Your task to perform on an android device: check battery use Image 0: 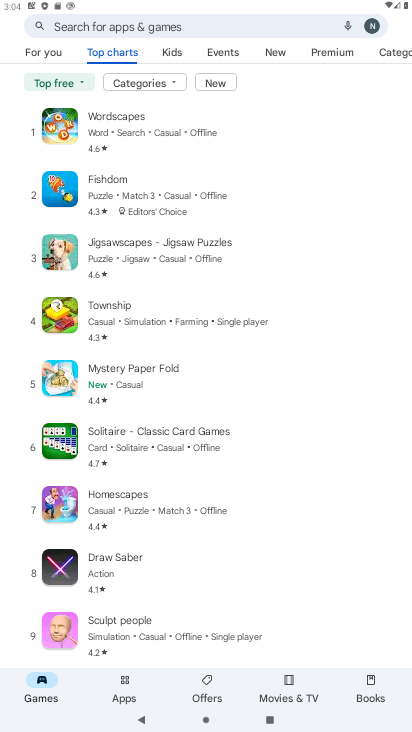
Step 0: press home button
Your task to perform on an android device: check battery use Image 1: 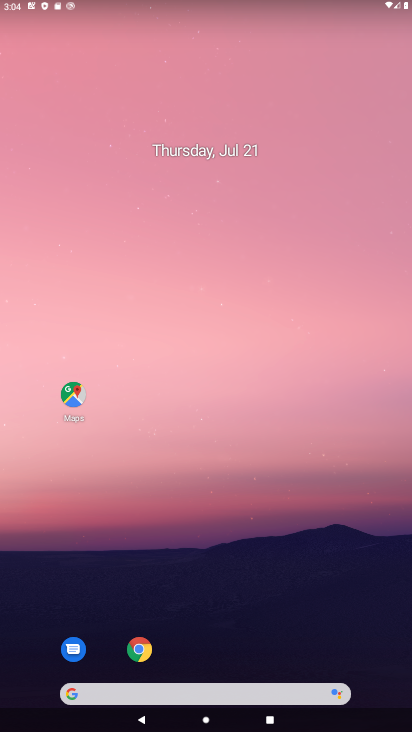
Step 1: drag from (240, 664) to (224, 153)
Your task to perform on an android device: check battery use Image 2: 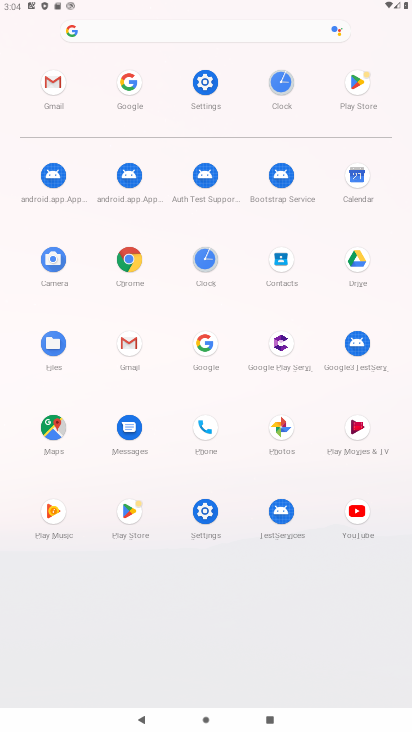
Step 2: click (216, 82)
Your task to perform on an android device: check battery use Image 3: 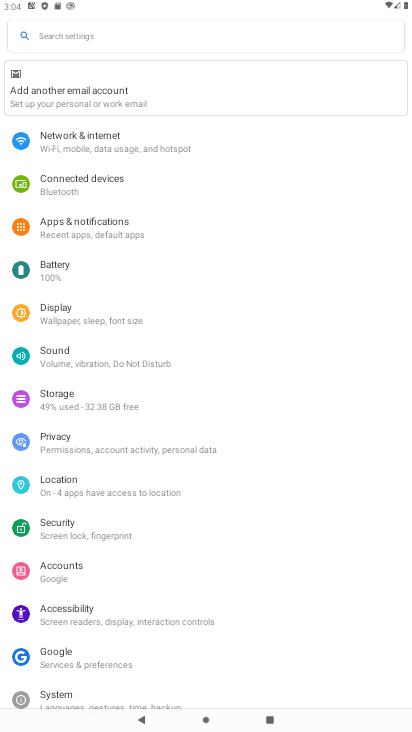
Step 3: click (98, 274)
Your task to perform on an android device: check battery use Image 4: 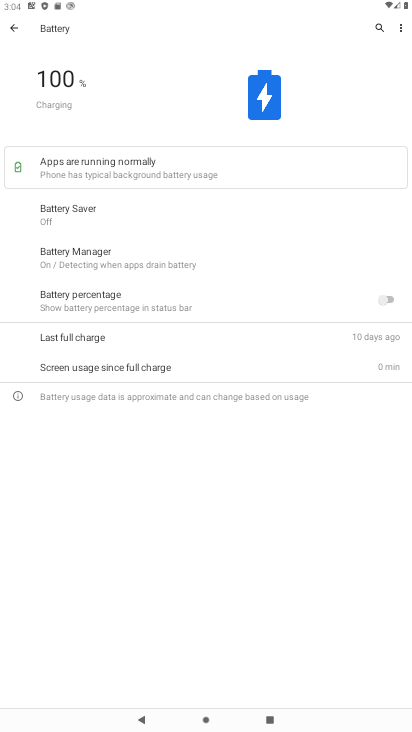
Step 4: task complete